Your task to perform on an android device: Open accessibility settings Image 0: 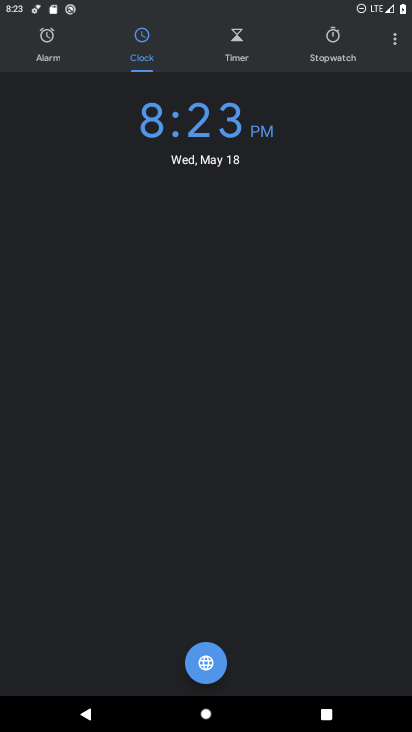
Step 0: press home button
Your task to perform on an android device: Open accessibility settings Image 1: 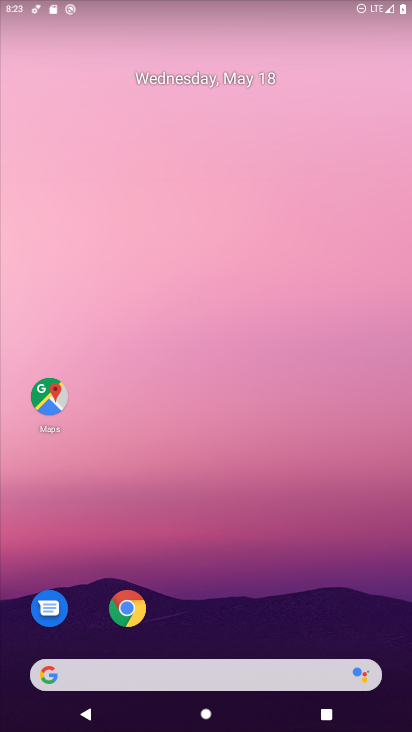
Step 1: drag from (243, 624) to (215, 42)
Your task to perform on an android device: Open accessibility settings Image 2: 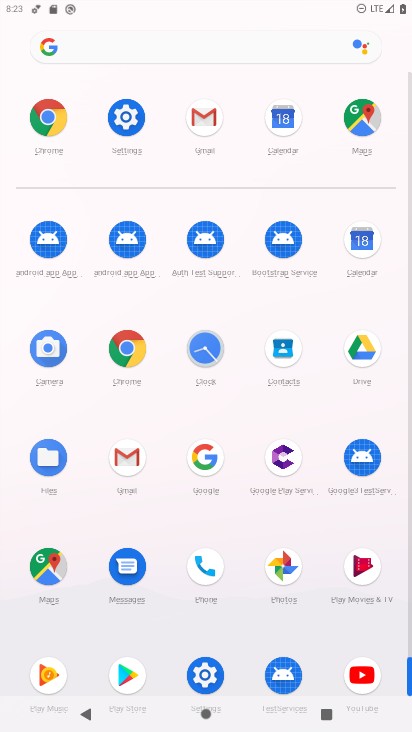
Step 2: click (131, 142)
Your task to perform on an android device: Open accessibility settings Image 3: 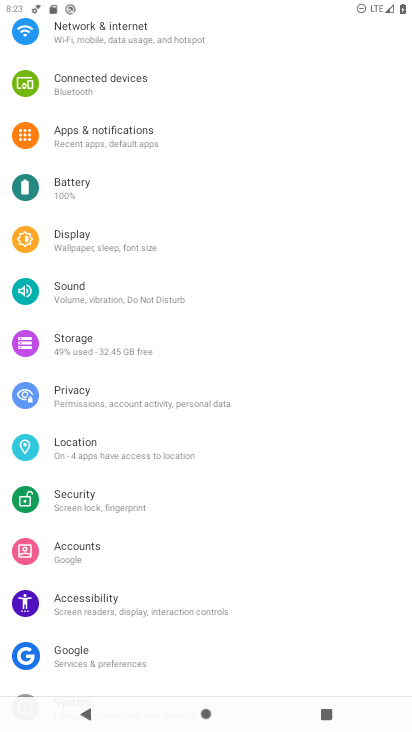
Step 3: click (92, 603)
Your task to perform on an android device: Open accessibility settings Image 4: 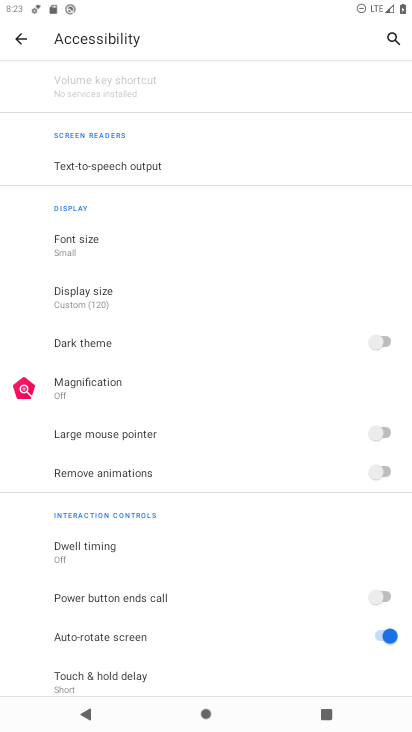
Step 4: task complete